Your task to perform on an android device: refresh tabs in the chrome app Image 0: 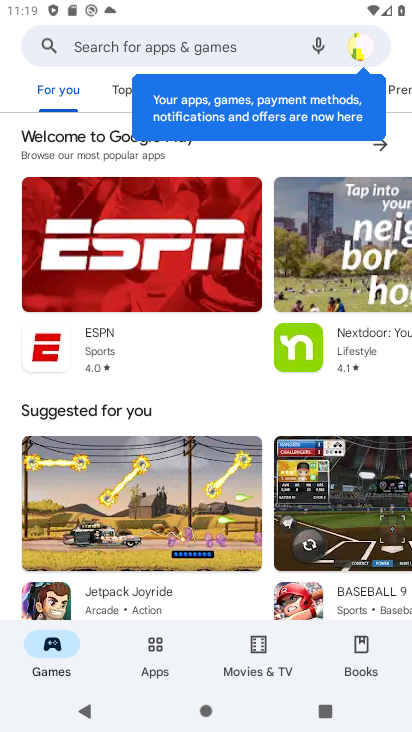
Step 0: press home button
Your task to perform on an android device: refresh tabs in the chrome app Image 1: 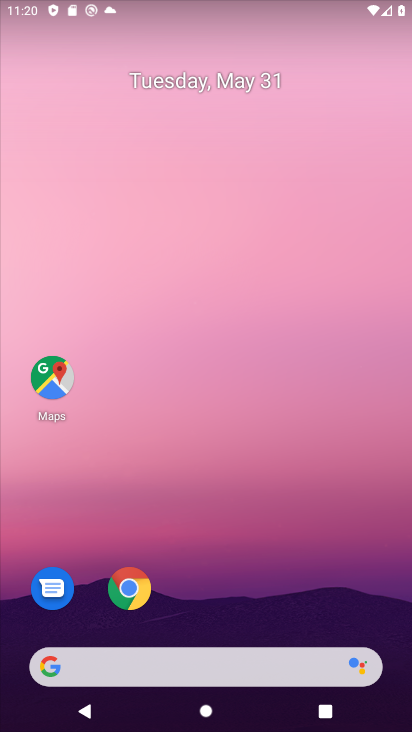
Step 1: click (129, 587)
Your task to perform on an android device: refresh tabs in the chrome app Image 2: 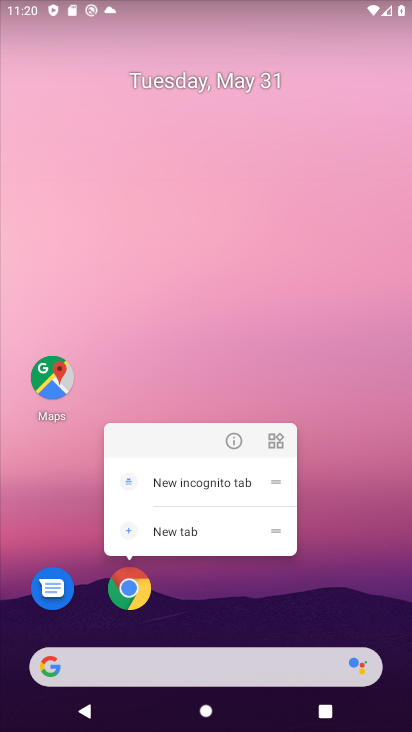
Step 2: click (137, 585)
Your task to perform on an android device: refresh tabs in the chrome app Image 3: 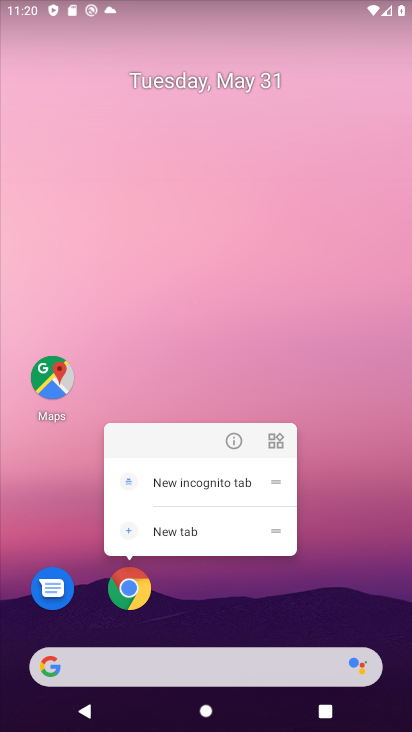
Step 3: click (224, 446)
Your task to perform on an android device: refresh tabs in the chrome app Image 4: 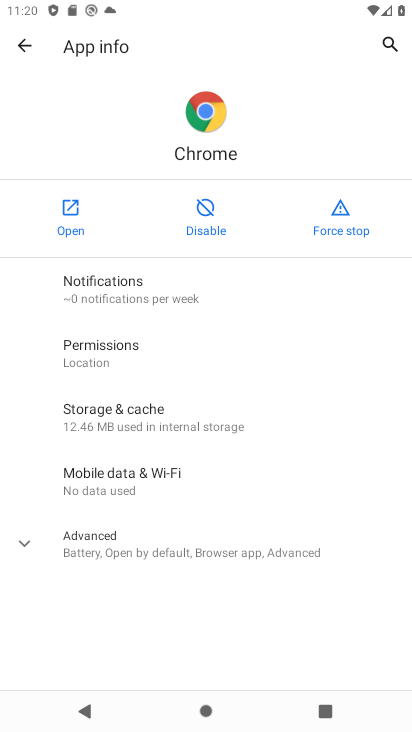
Step 4: click (65, 231)
Your task to perform on an android device: refresh tabs in the chrome app Image 5: 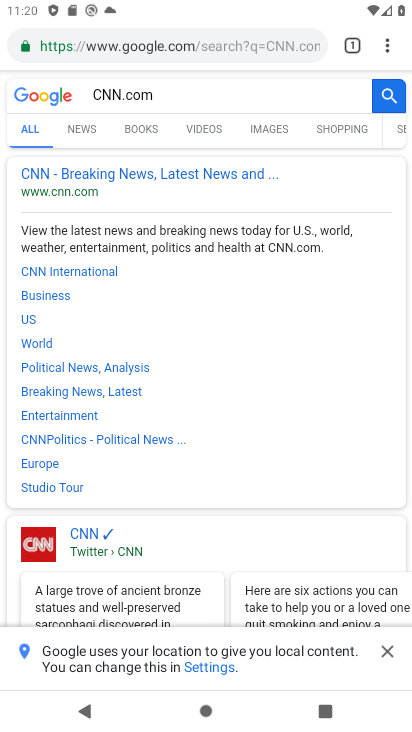
Step 5: click (387, 45)
Your task to perform on an android device: refresh tabs in the chrome app Image 6: 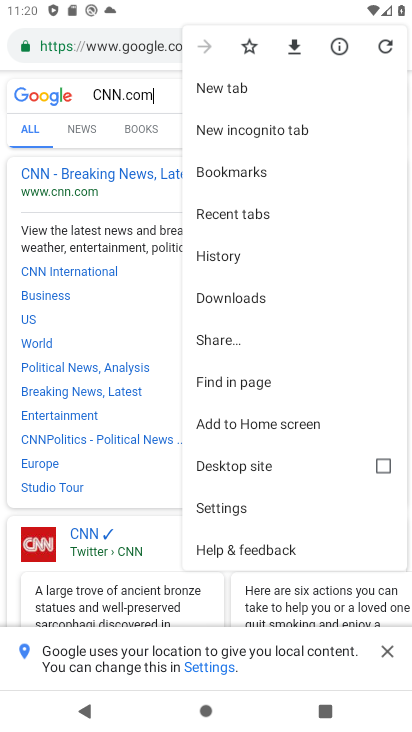
Step 6: click (381, 49)
Your task to perform on an android device: refresh tabs in the chrome app Image 7: 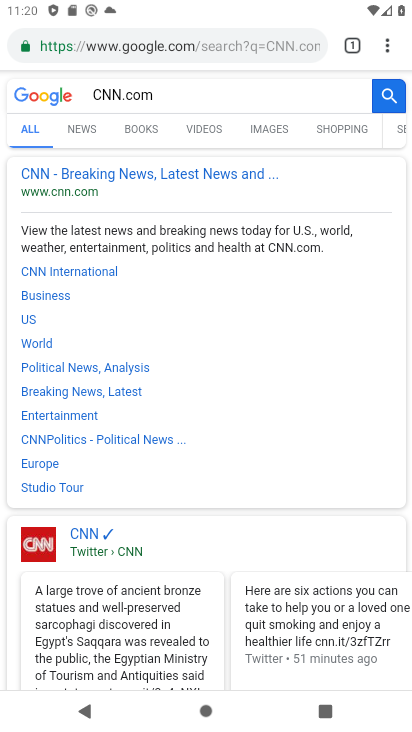
Step 7: task complete